Your task to perform on an android device: Go to Google Image 0: 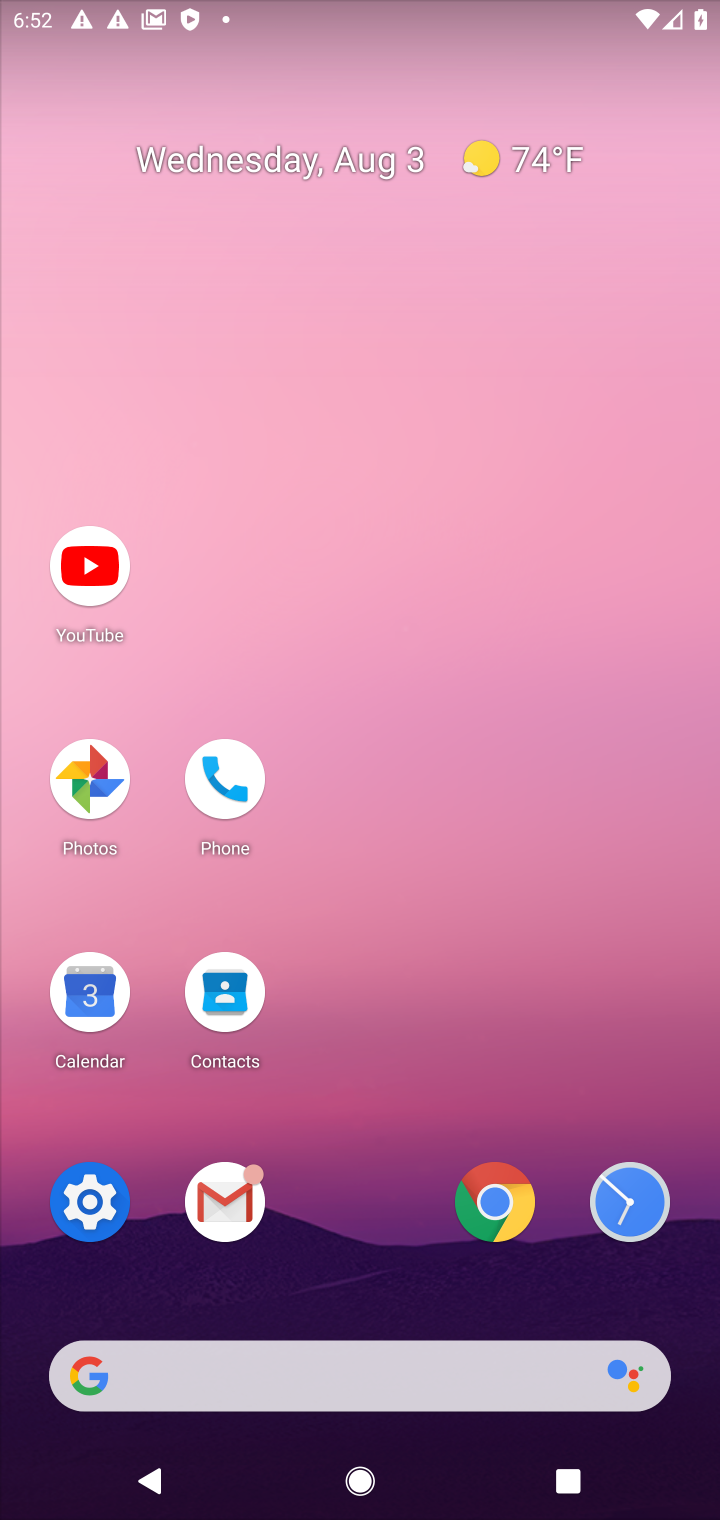
Step 0: click (89, 1371)
Your task to perform on an android device: Go to Google Image 1: 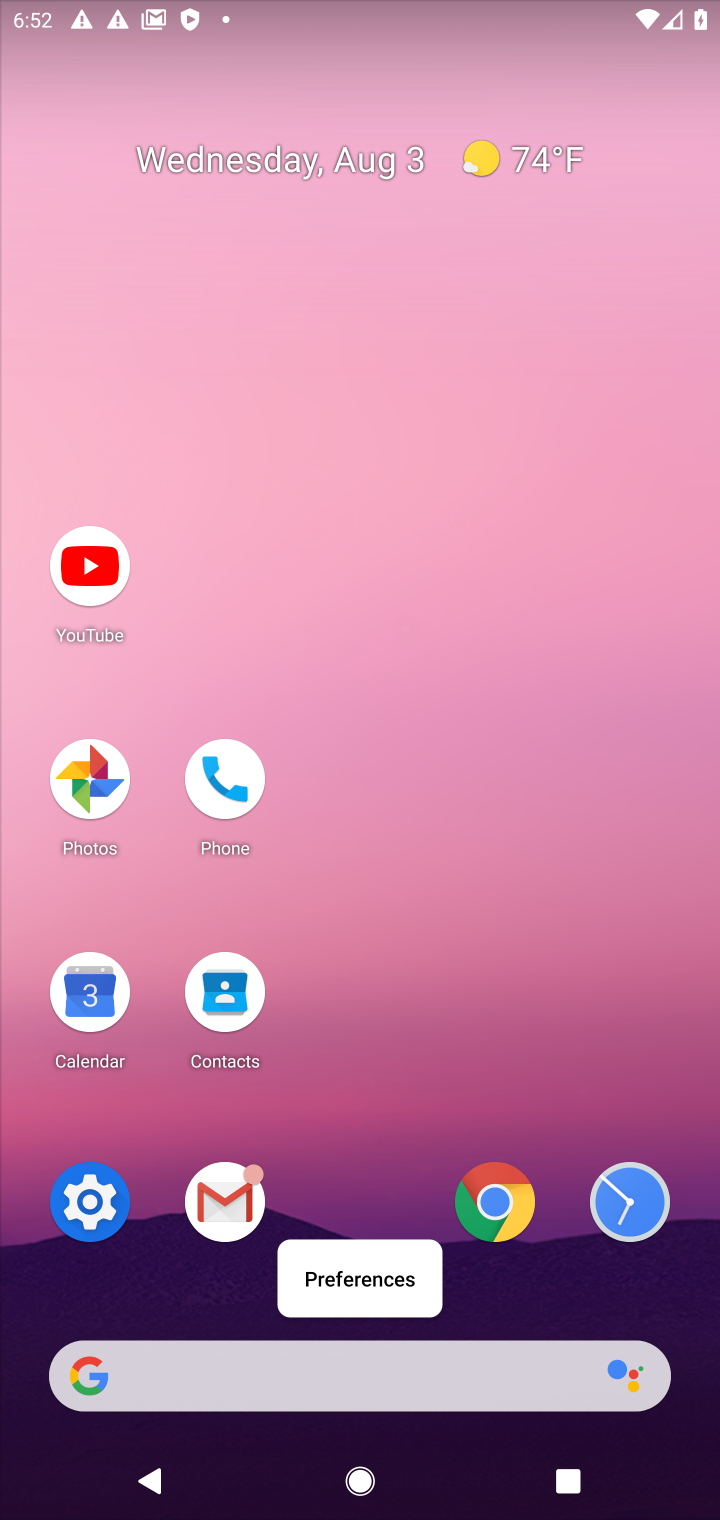
Step 1: click (105, 1368)
Your task to perform on an android device: Go to Google Image 2: 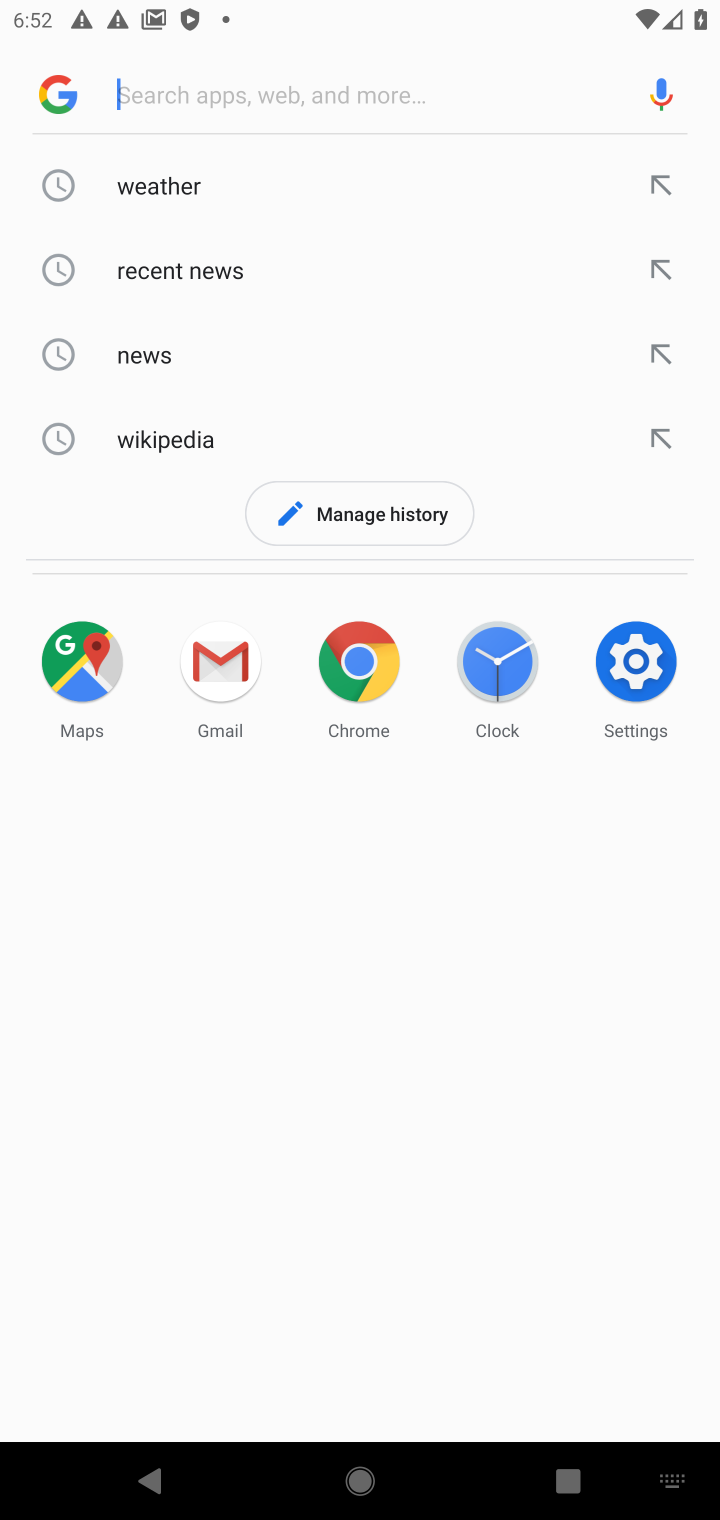
Step 2: click (56, 80)
Your task to perform on an android device: Go to Google Image 3: 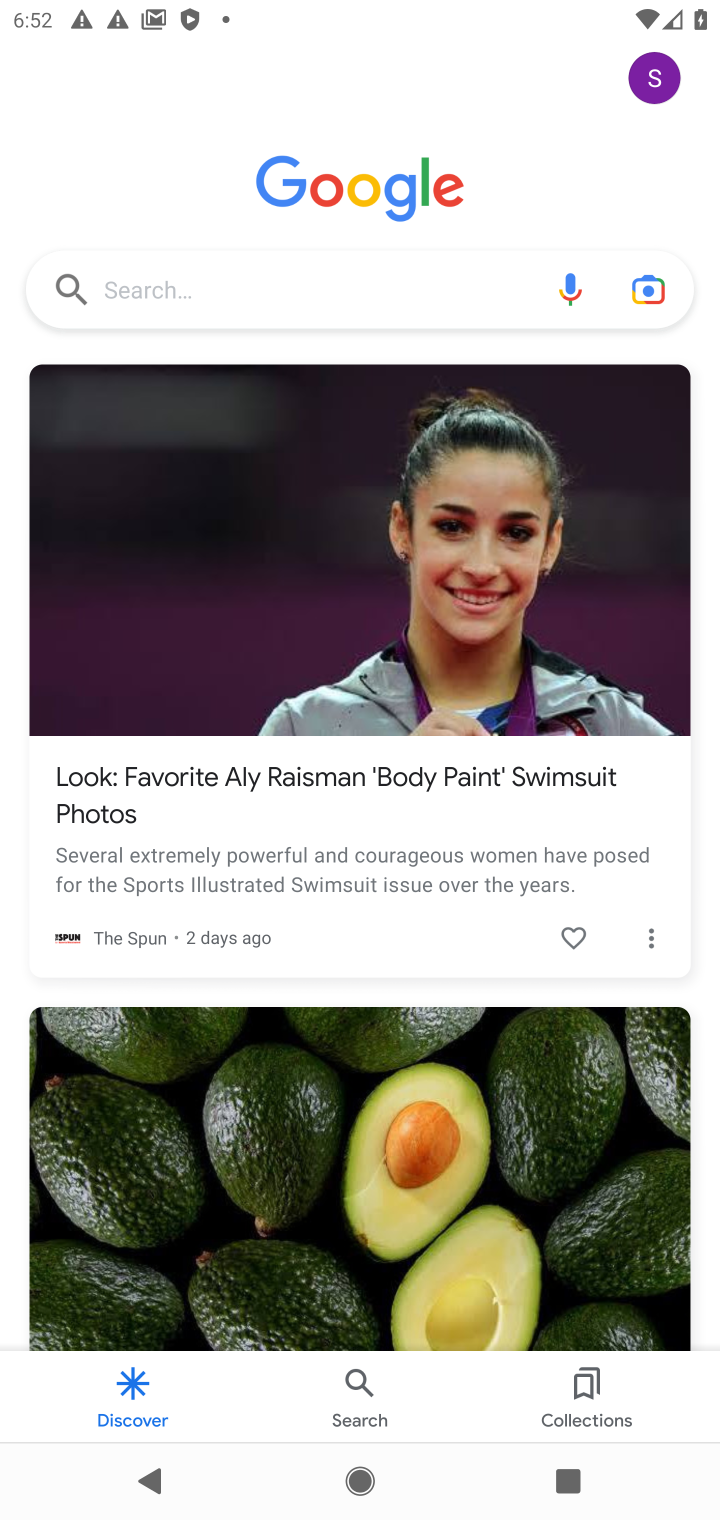
Step 3: task complete